Your task to perform on an android device: check battery use Image 0: 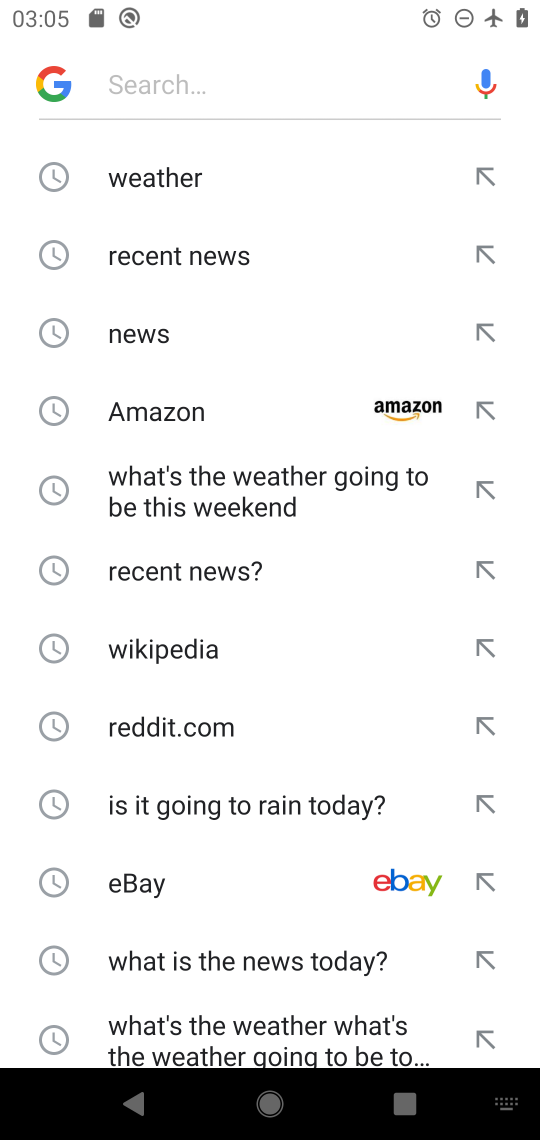
Step 0: press home button
Your task to perform on an android device: check battery use Image 1: 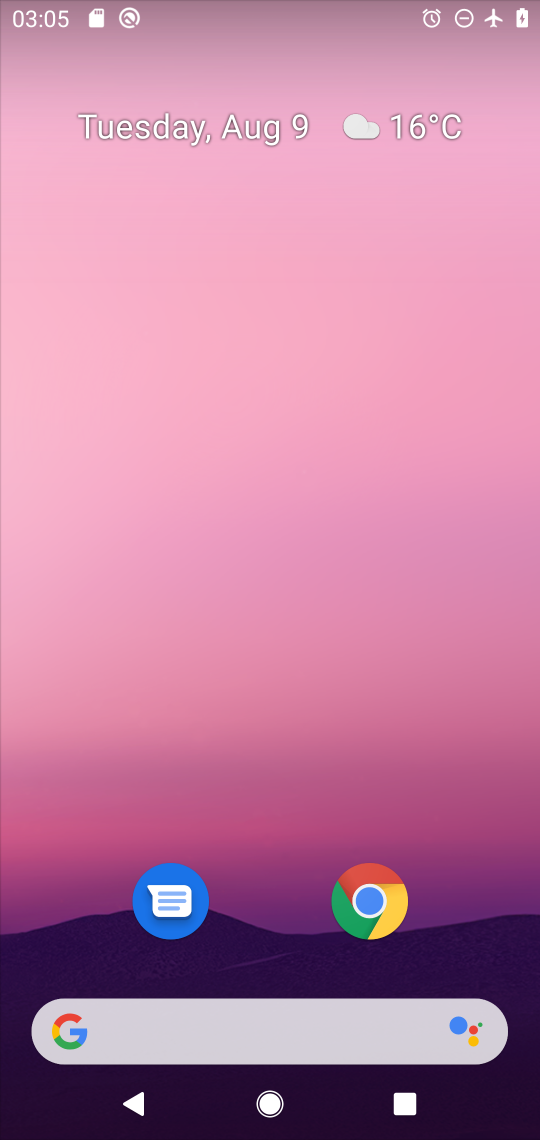
Step 1: drag from (495, 965) to (450, 122)
Your task to perform on an android device: check battery use Image 2: 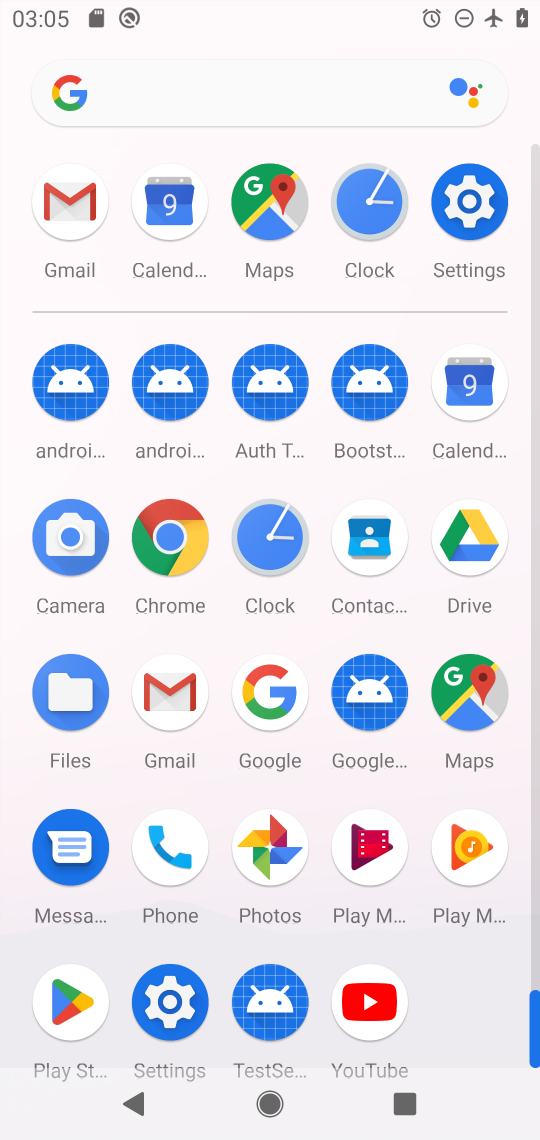
Step 2: click (169, 1001)
Your task to perform on an android device: check battery use Image 3: 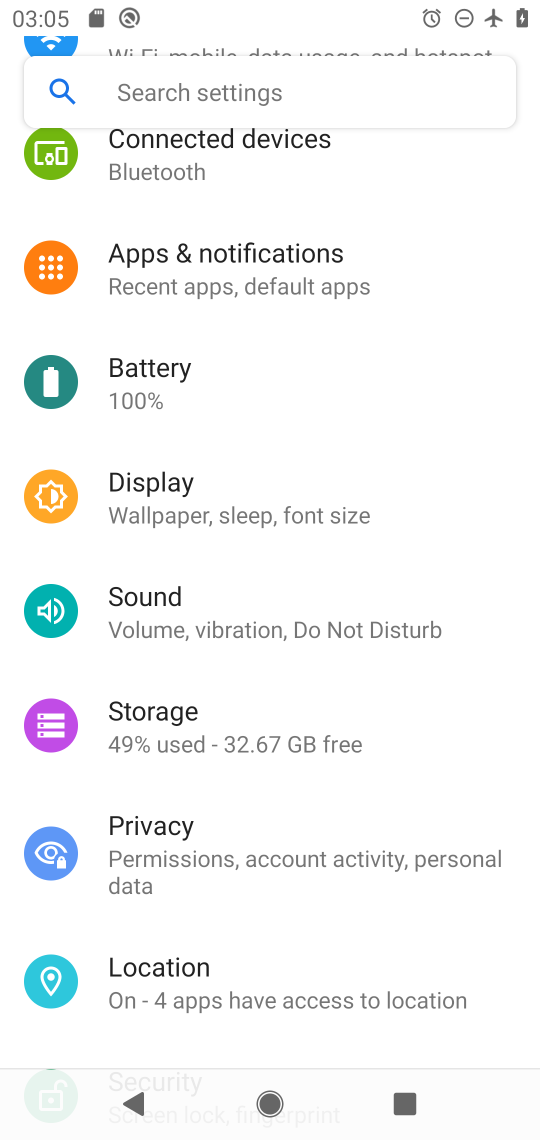
Step 3: click (132, 375)
Your task to perform on an android device: check battery use Image 4: 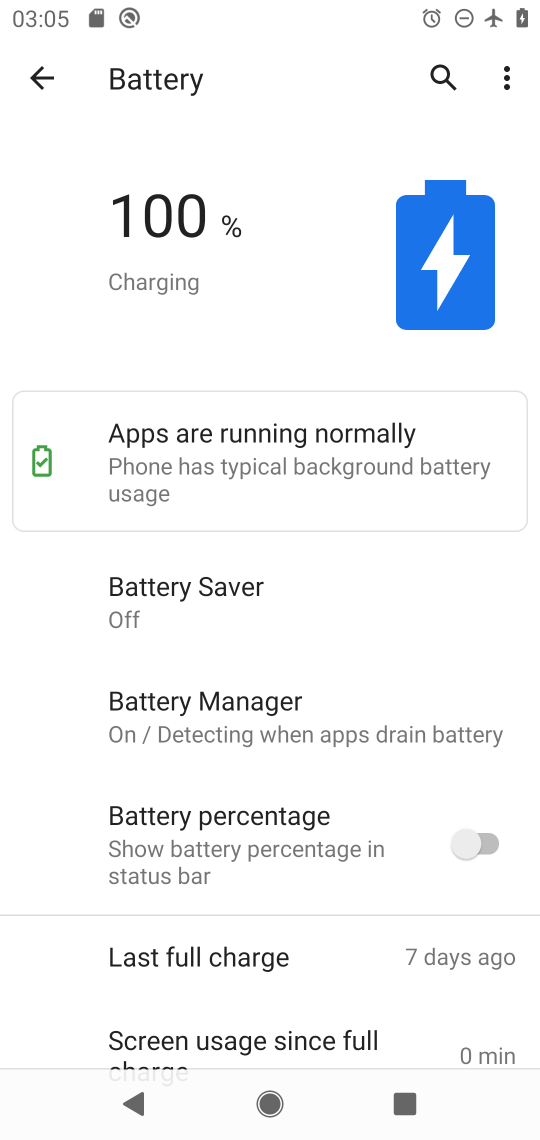
Step 4: click (504, 84)
Your task to perform on an android device: check battery use Image 5: 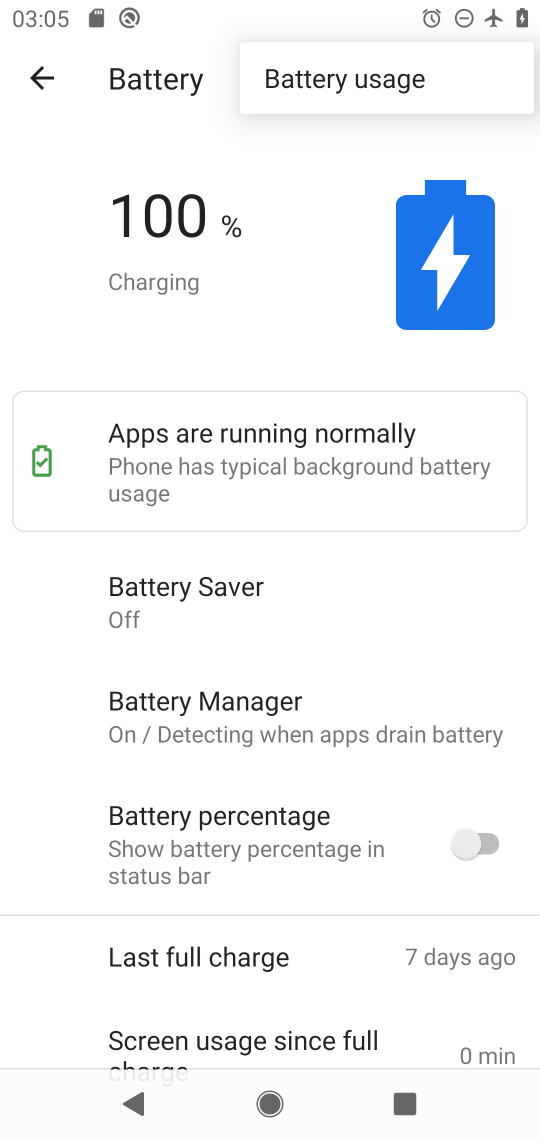
Step 5: click (326, 72)
Your task to perform on an android device: check battery use Image 6: 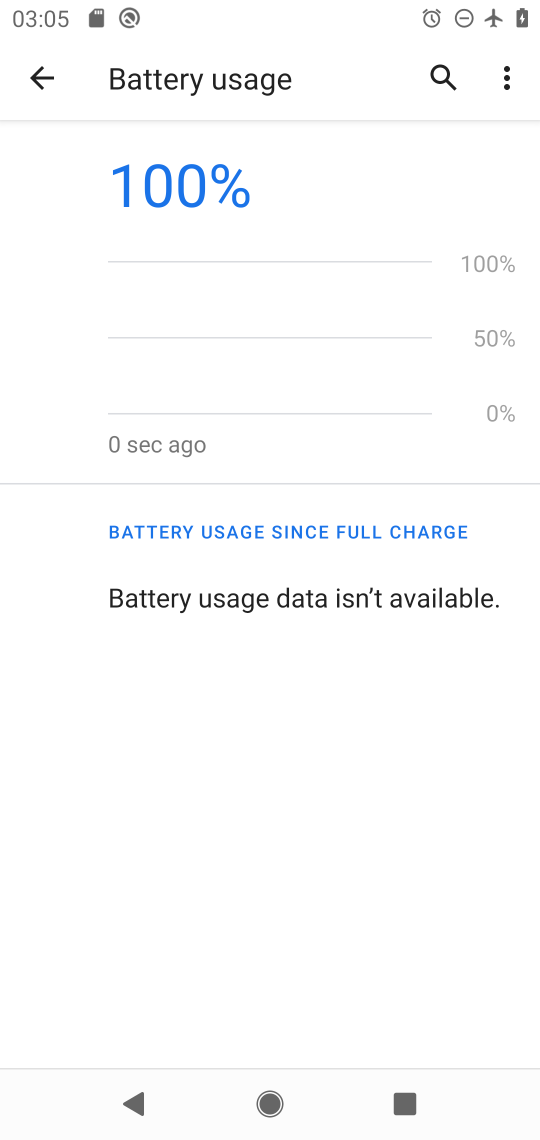
Step 6: task complete